Your task to perform on an android device: turn off picture-in-picture Image 0: 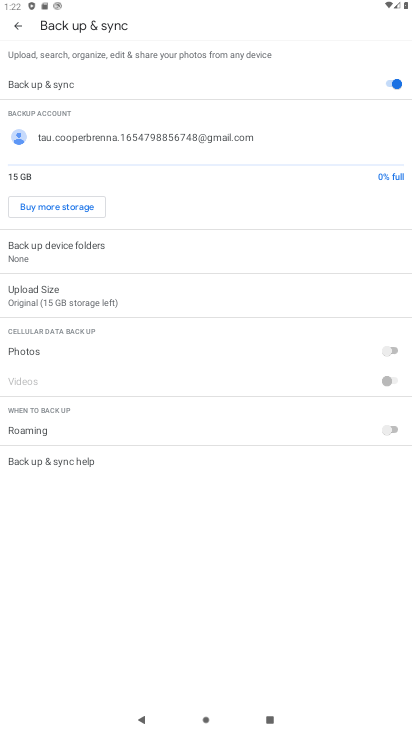
Step 0: press home button
Your task to perform on an android device: turn off picture-in-picture Image 1: 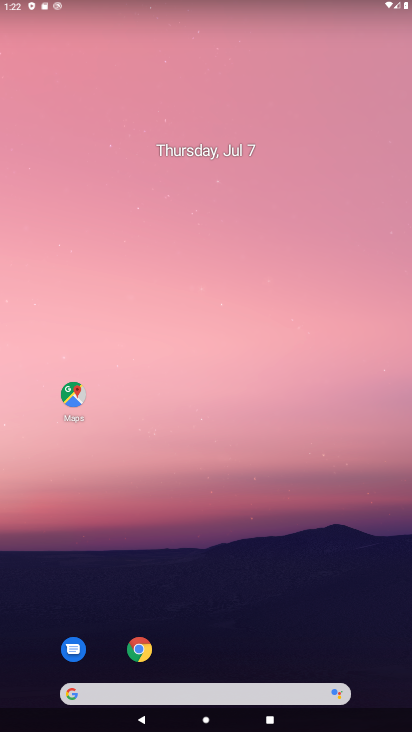
Step 1: drag from (377, 653) to (334, 82)
Your task to perform on an android device: turn off picture-in-picture Image 2: 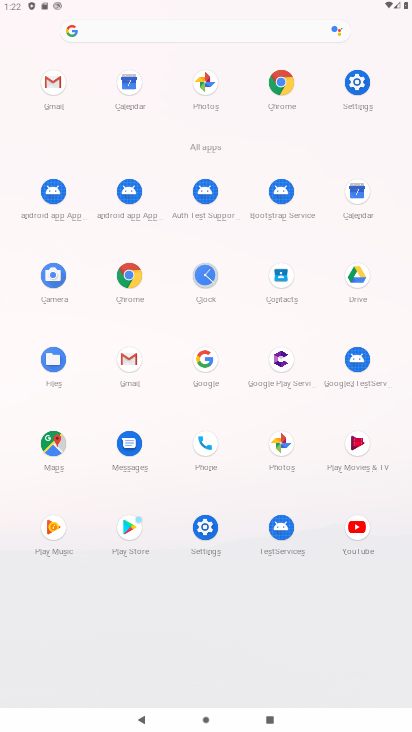
Step 2: click (205, 526)
Your task to perform on an android device: turn off picture-in-picture Image 3: 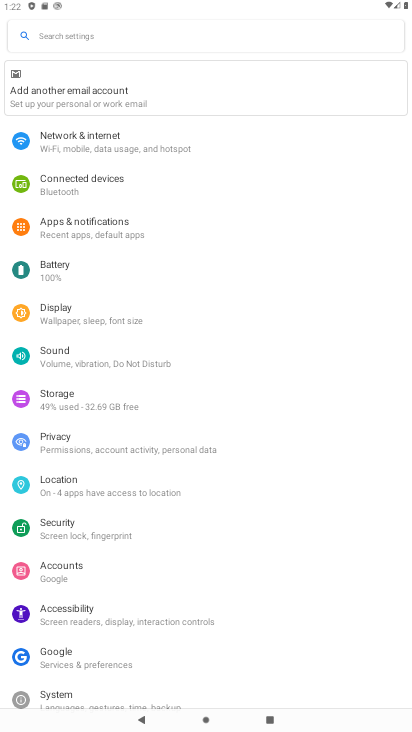
Step 3: click (75, 220)
Your task to perform on an android device: turn off picture-in-picture Image 4: 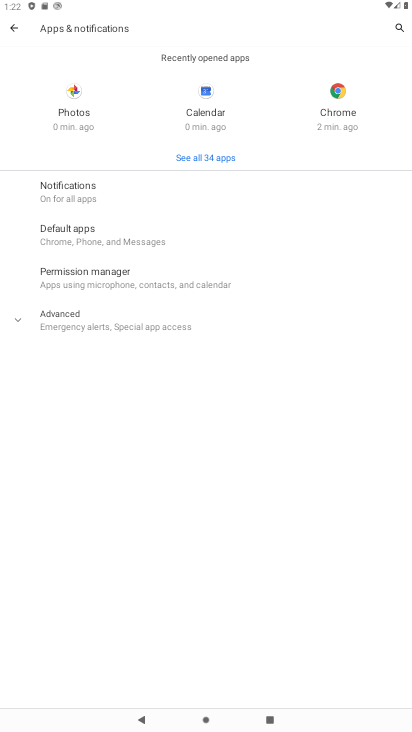
Step 4: click (24, 323)
Your task to perform on an android device: turn off picture-in-picture Image 5: 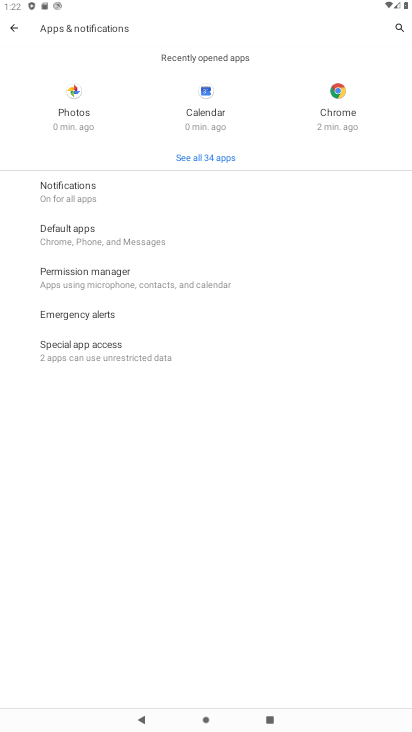
Step 5: click (99, 350)
Your task to perform on an android device: turn off picture-in-picture Image 6: 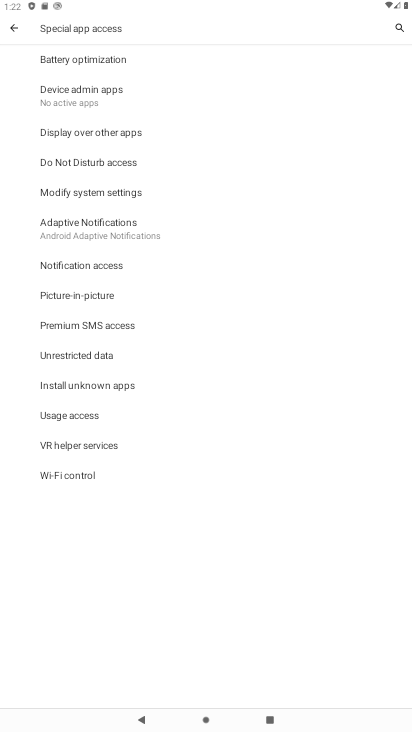
Step 6: click (68, 291)
Your task to perform on an android device: turn off picture-in-picture Image 7: 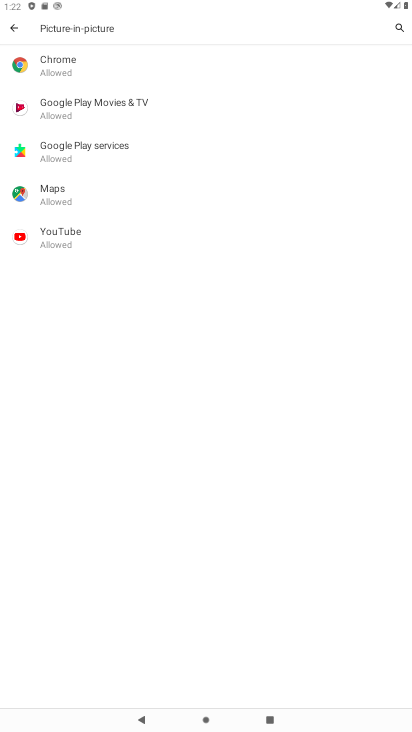
Step 7: click (53, 236)
Your task to perform on an android device: turn off picture-in-picture Image 8: 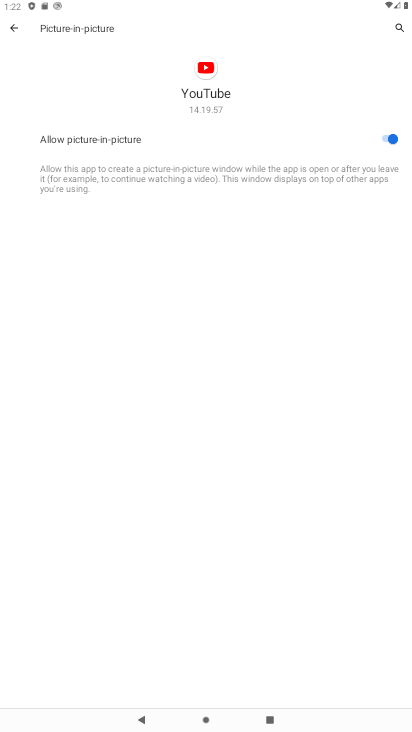
Step 8: click (386, 137)
Your task to perform on an android device: turn off picture-in-picture Image 9: 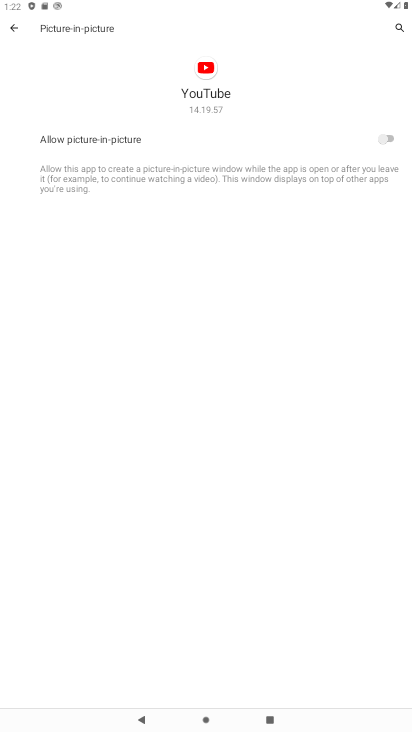
Step 9: task complete